Your task to perform on an android device: open a new tab in the chrome app Image 0: 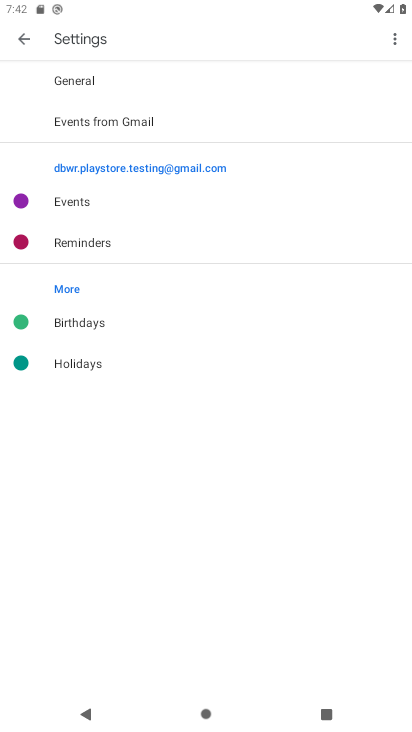
Step 0: press home button
Your task to perform on an android device: open a new tab in the chrome app Image 1: 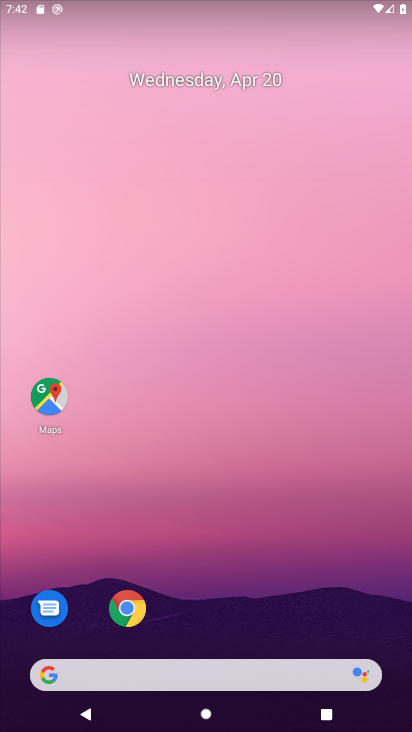
Step 1: drag from (246, 642) to (283, 210)
Your task to perform on an android device: open a new tab in the chrome app Image 2: 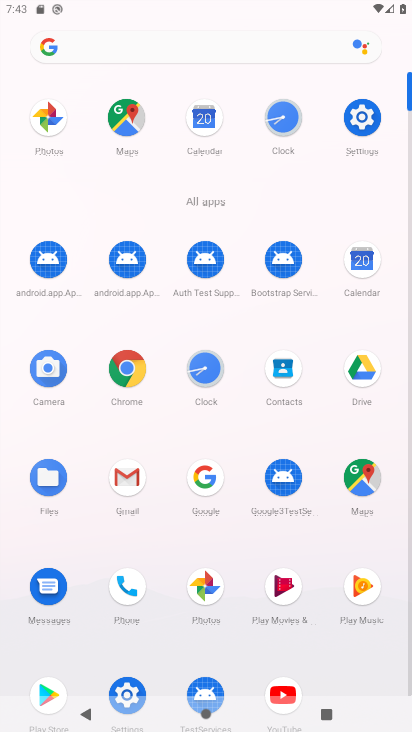
Step 2: click (128, 362)
Your task to perform on an android device: open a new tab in the chrome app Image 3: 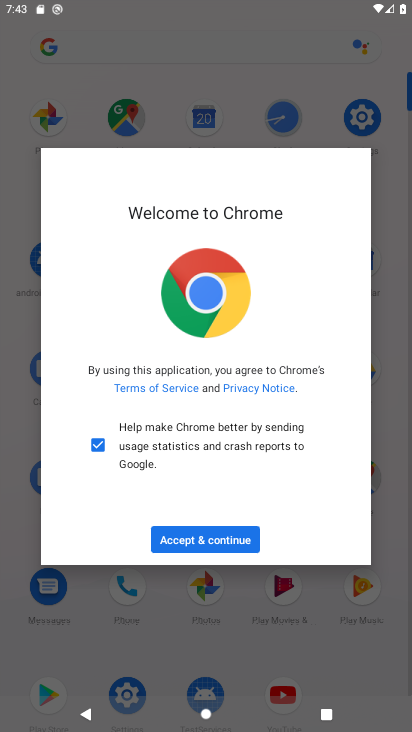
Step 3: click (220, 539)
Your task to perform on an android device: open a new tab in the chrome app Image 4: 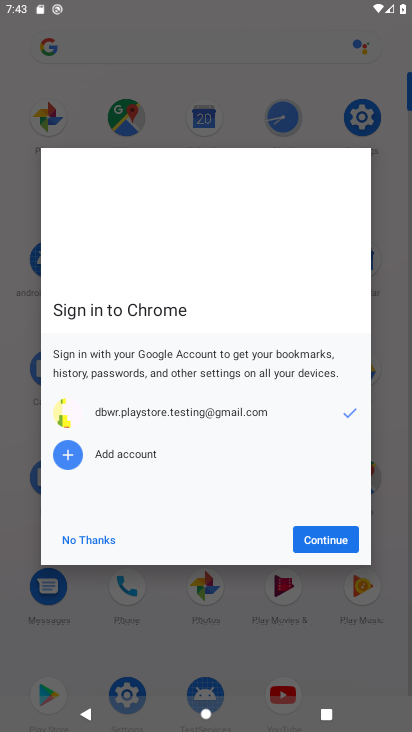
Step 4: click (319, 530)
Your task to perform on an android device: open a new tab in the chrome app Image 5: 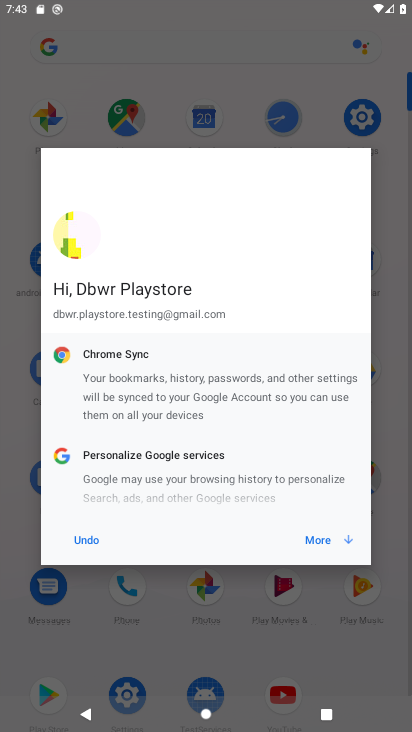
Step 5: click (319, 538)
Your task to perform on an android device: open a new tab in the chrome app Image 6: 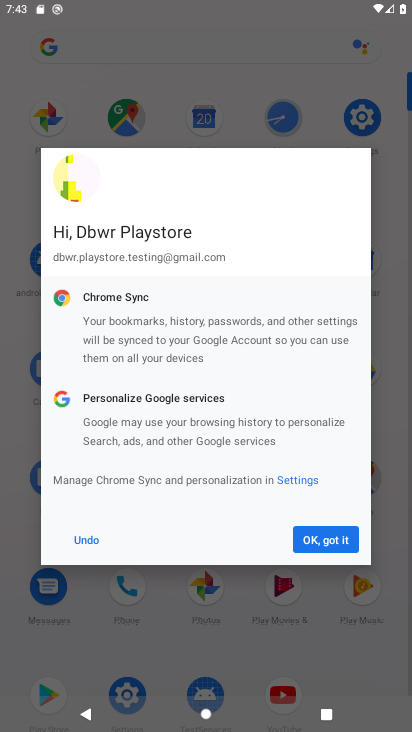
Step 6: click (319, 538)
Your task to perform on an android device: open a new tab in the chrome app Image 7: 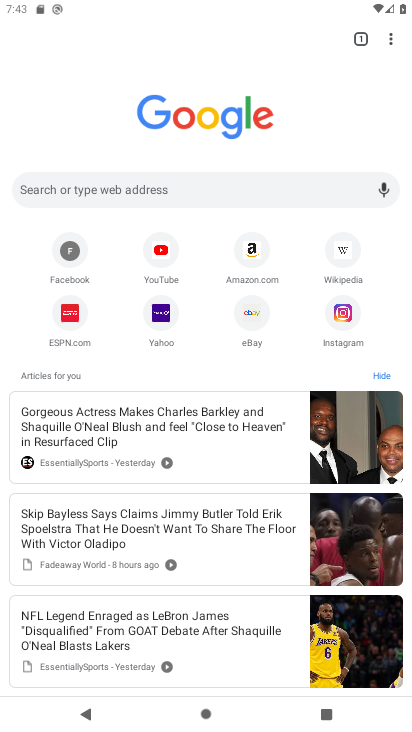
Step 7: click (388, 44)
Your task to perform on an android device: open a new tab in the chrome app Image 8: 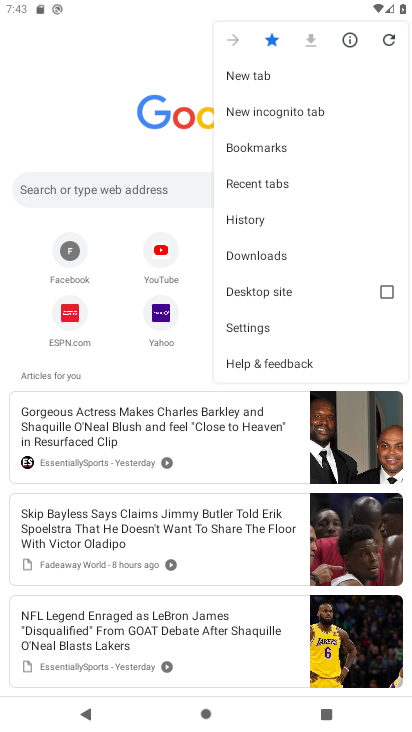
Step 8: click (319, 68)
Your task to perform on an android device: open a new tab in the chrome app Image 9: 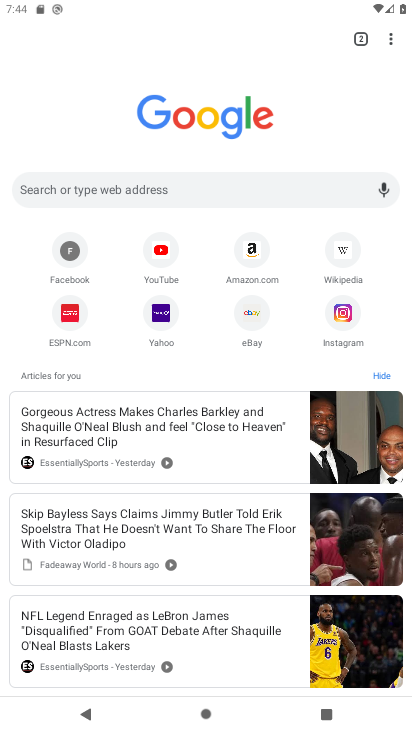
Step 9: task complete